Your task to perform on an android device: View the shopping cart on amazon.com. Add macbook air to the cart on amazon.com Image 0: 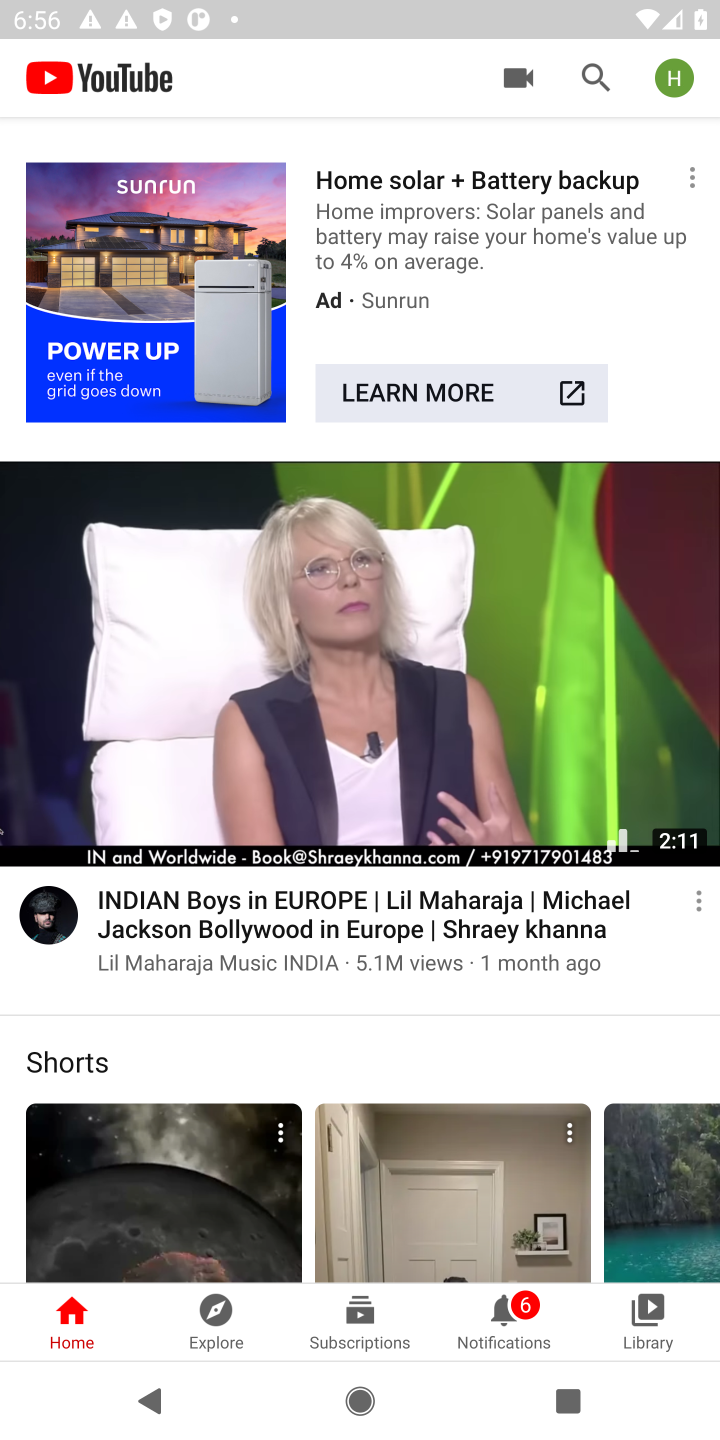
Step 0: press home button
Your task to perform on an android device: View the shopping cart on amazon.com. Add macbook air to the cart on amazon.com Image 1: 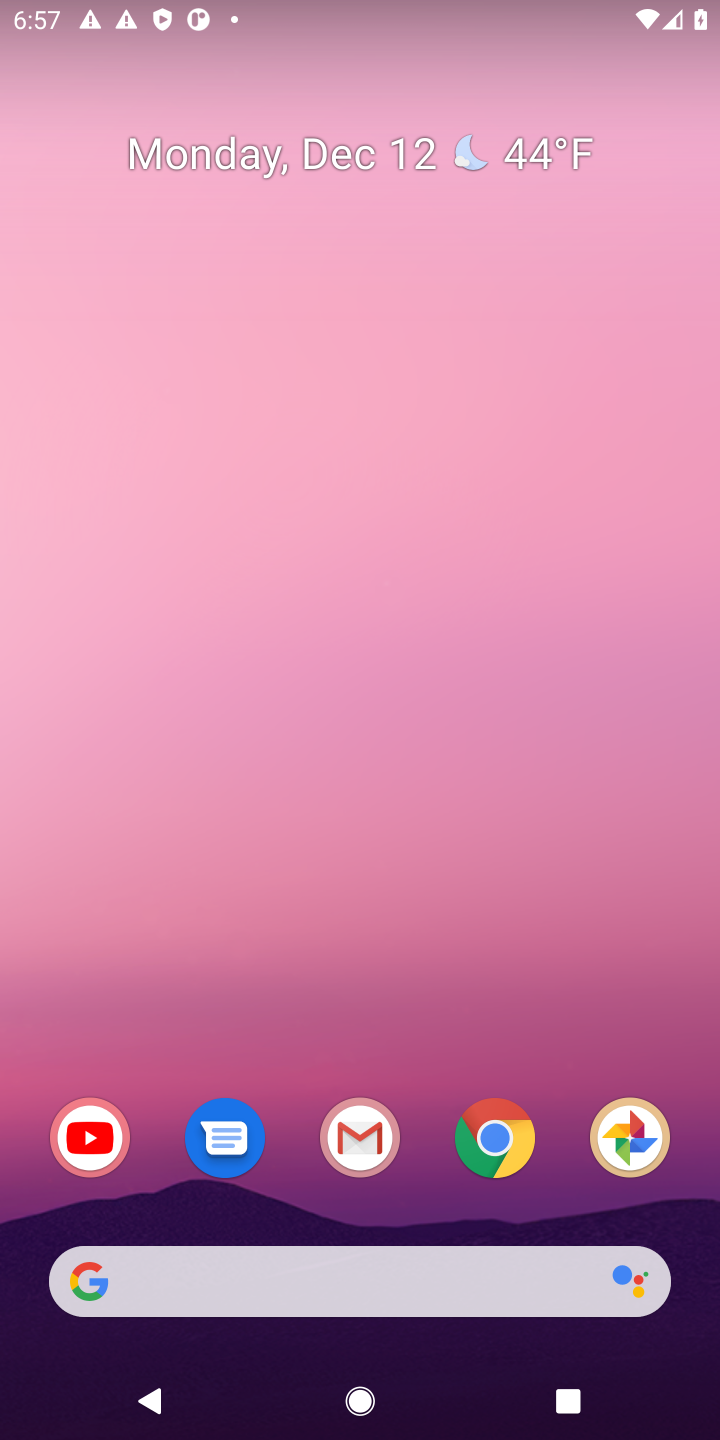
Step 1: click (297, 1281)
Your task to perform on an android device: View the shopping cart on amazon.com. Add macbook air to the cart on amazon.com Image 2: 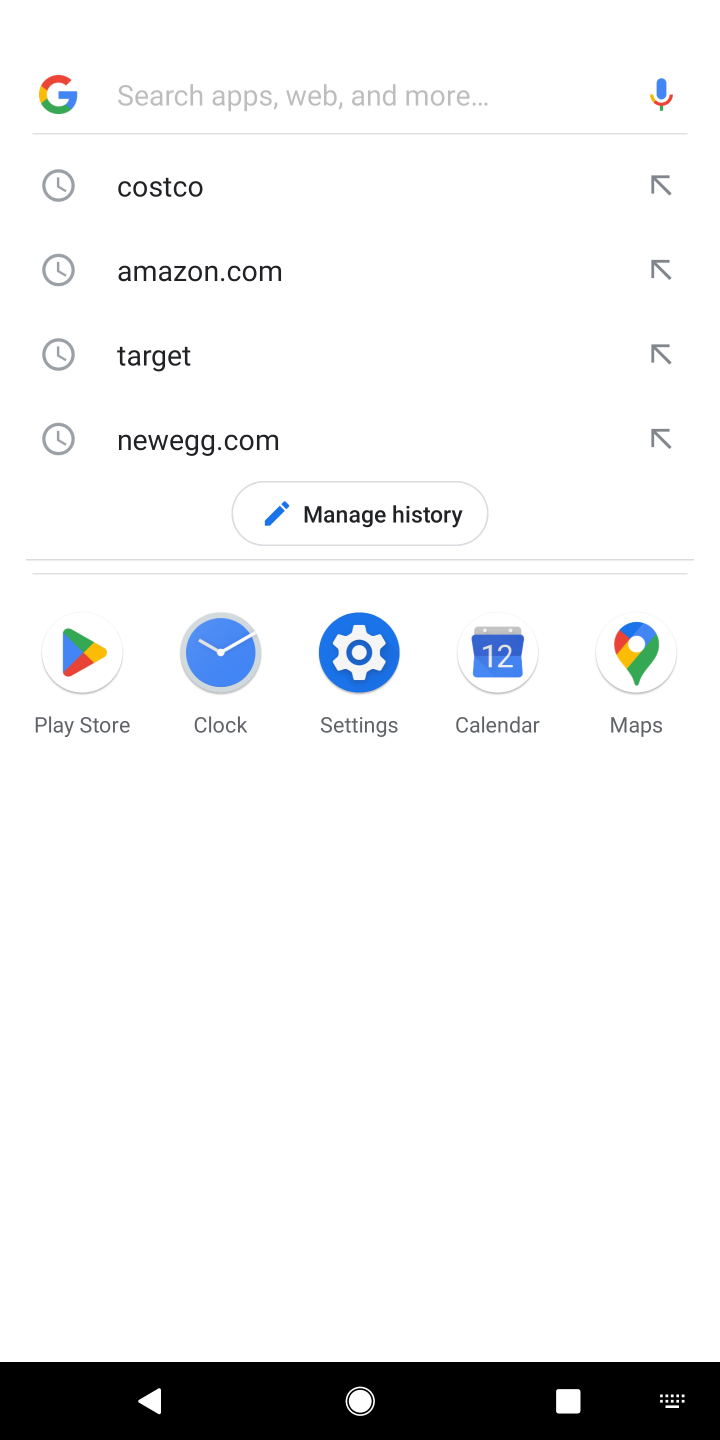
Step 2: click (172, 259)
Your task to perform on an android device: View the shopping cart on amazon.com. Add macbook air to the cart on amazon.com Image 3: 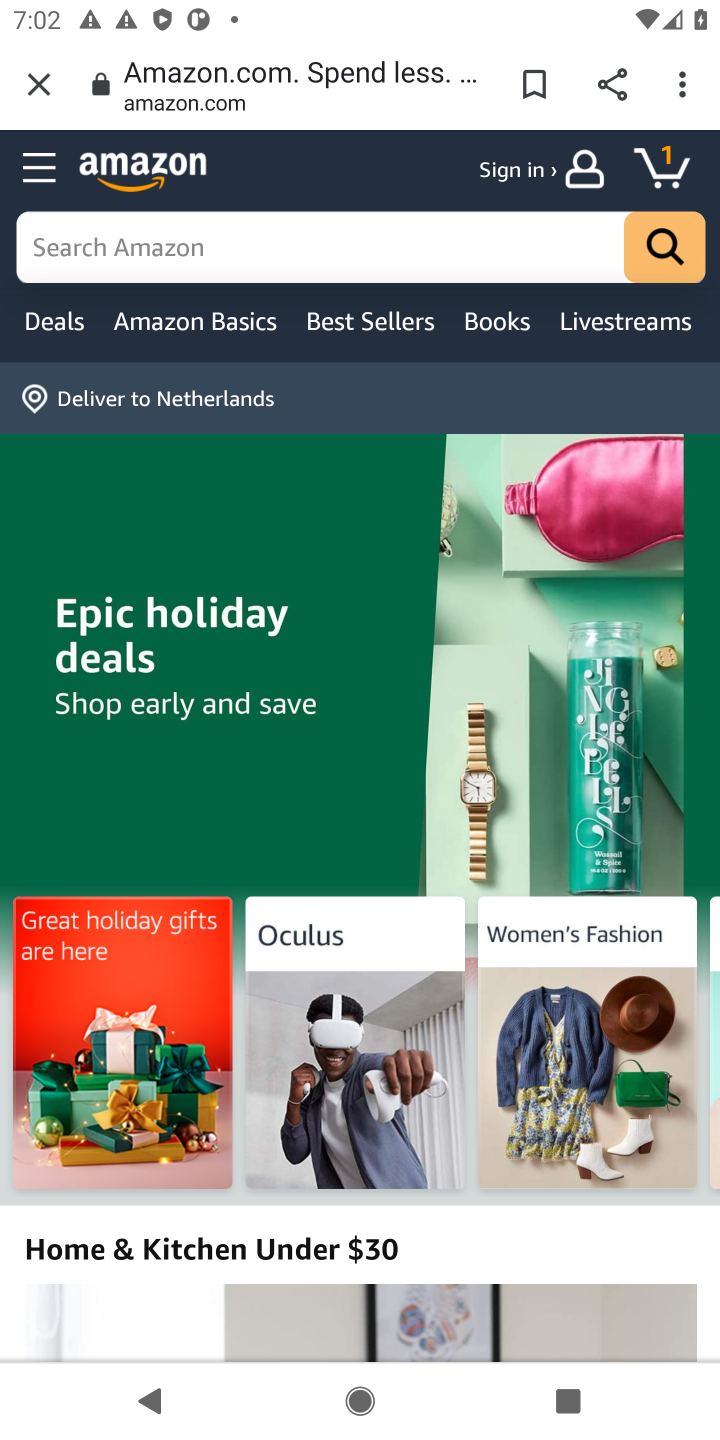
Step 3: click (664, 159)
Your task to perform on an android device: View the shopping cart on amazon.com. Add macbook air to the cart on amazon.com Image 4: 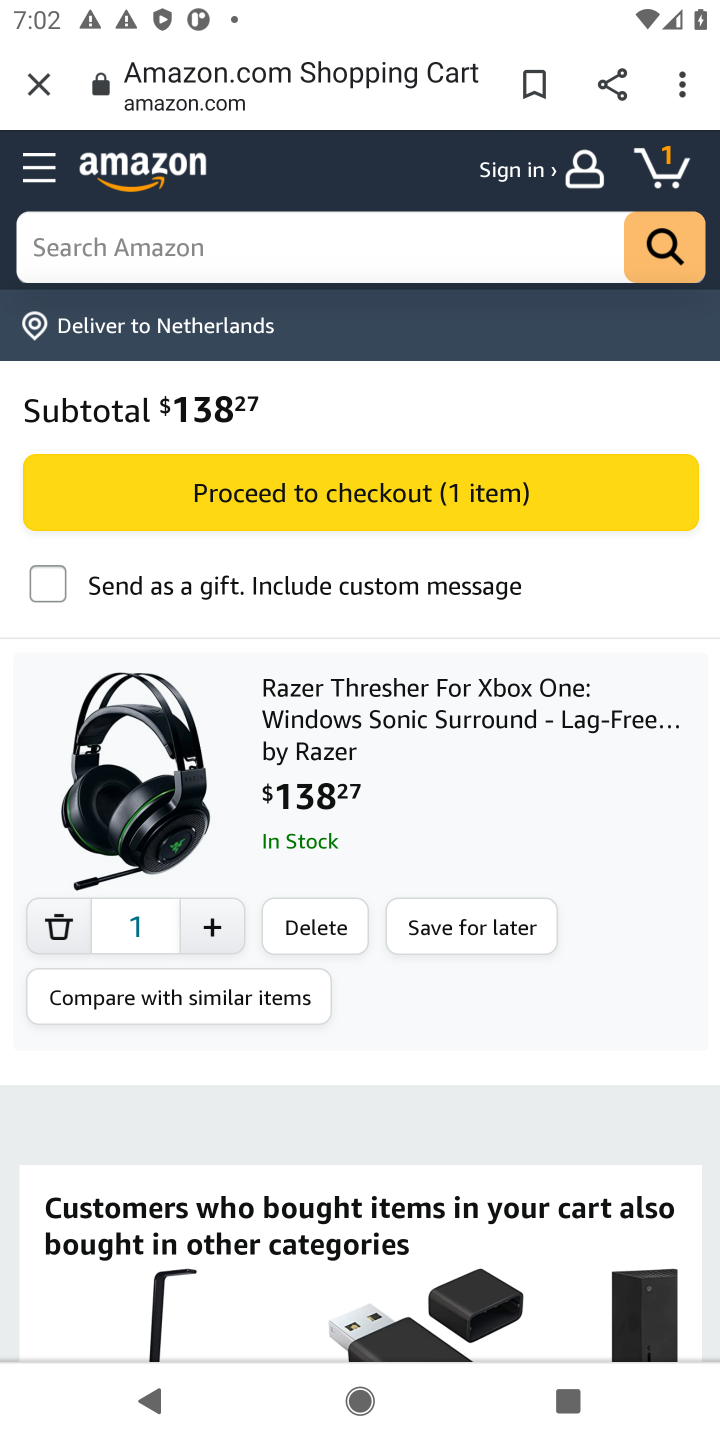
Step 4: click (518, 228)
Your task to perform on an android device: View the shopping cart on amazon.com. Add macbook air to the cart on amazon.com Image 5: 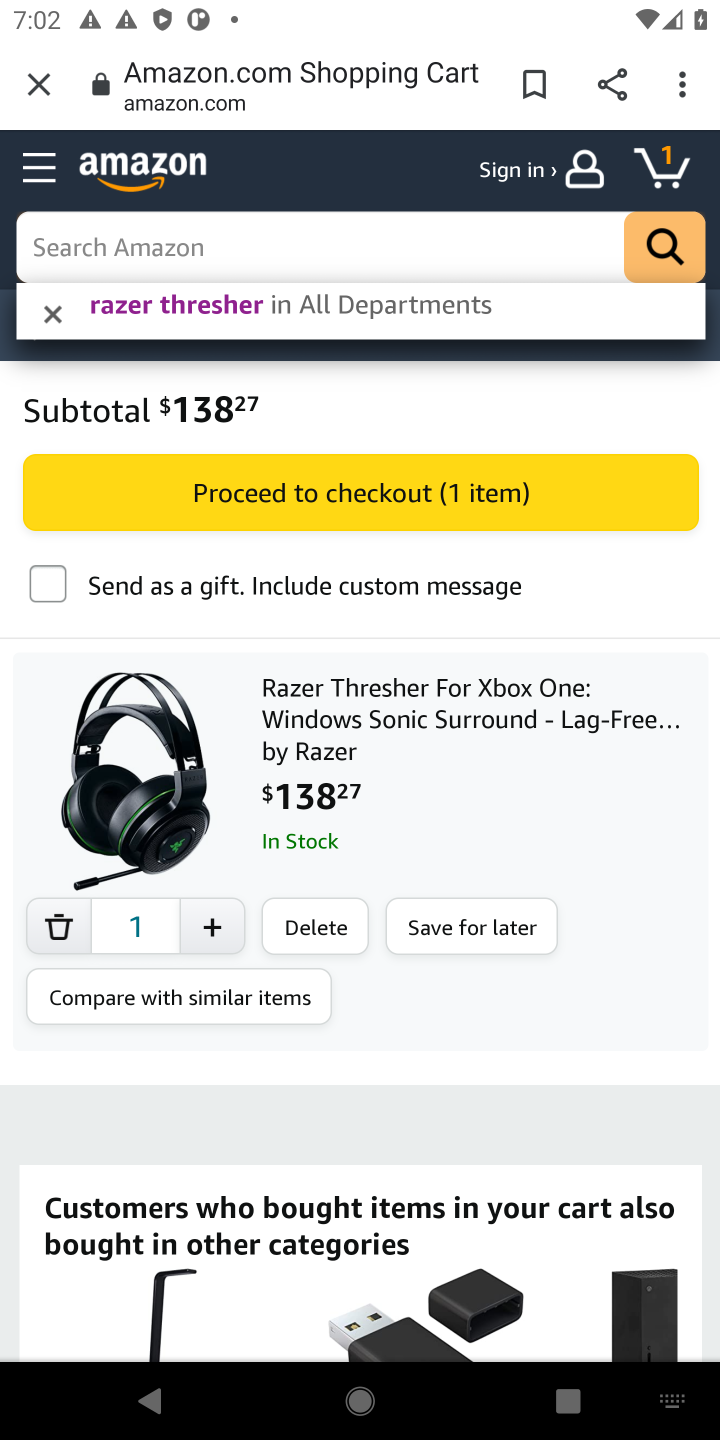
Step 5: type "macbook air "
Your task to perform on an android device: View the shopping cart on amazon.com. Add macbook air to the cart on amazon.com Image 6: 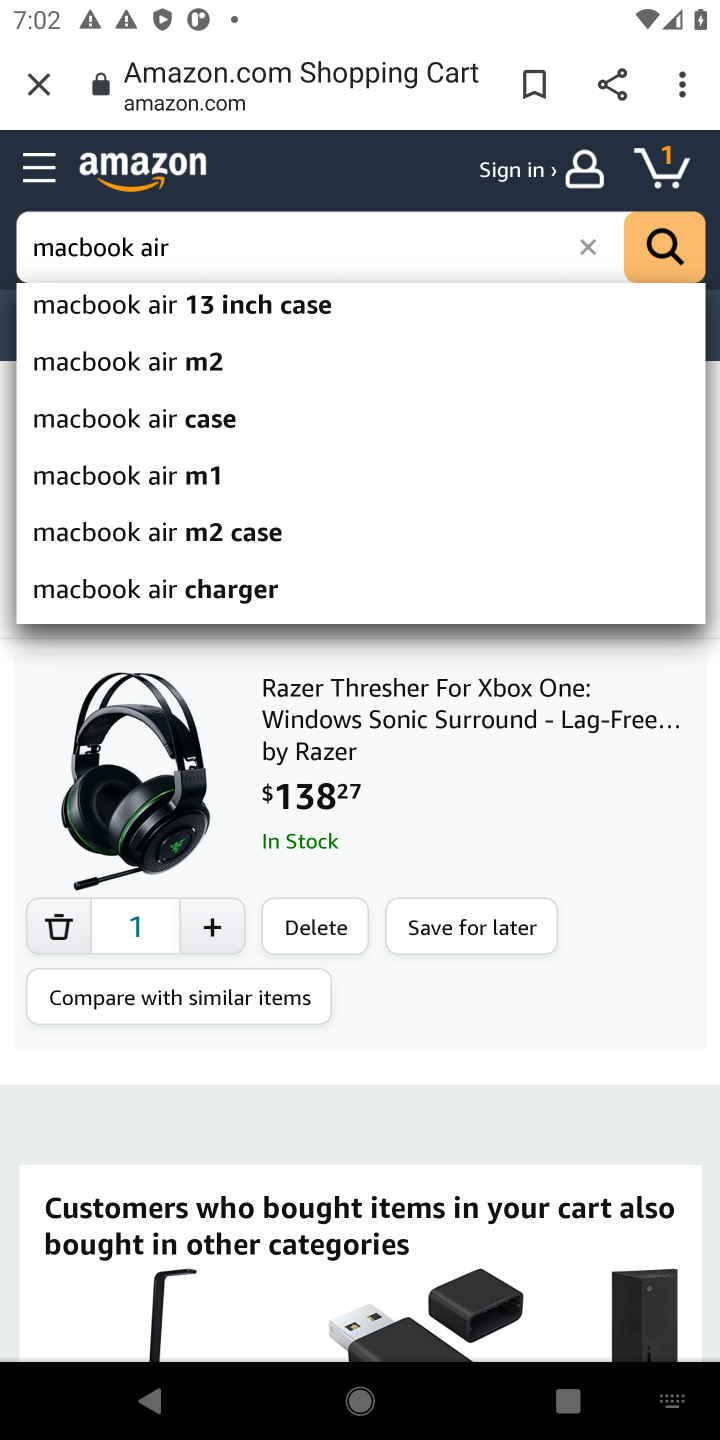
Step 6: click (260, 410)
Your task to perform on an android device: View the shopping cart on amazon.com. Add macbook air to the cart on amazon.com Image 7: 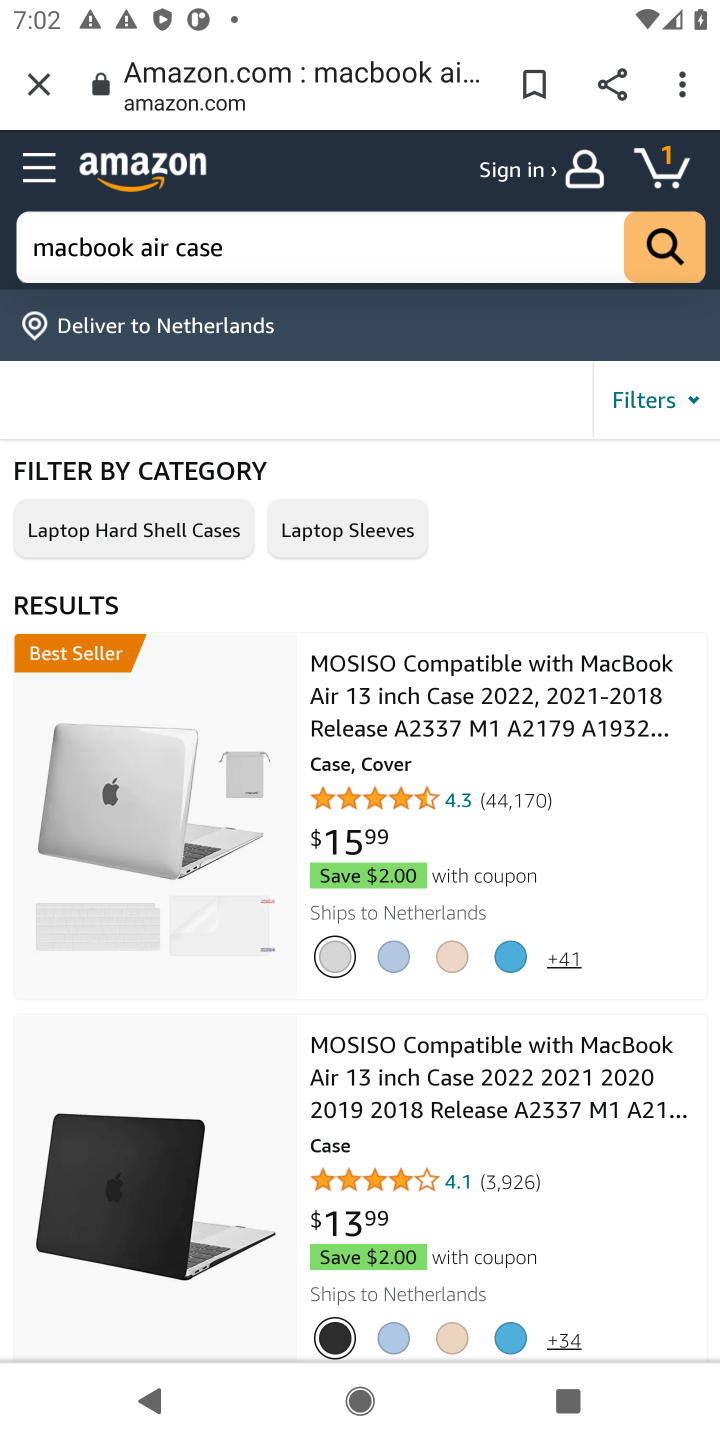
Step 7: click (475, 697)
Your task to perform on an android device: View the shopping cart on amazon.com. Add macbook air to the cart on amazon.com Image 8: 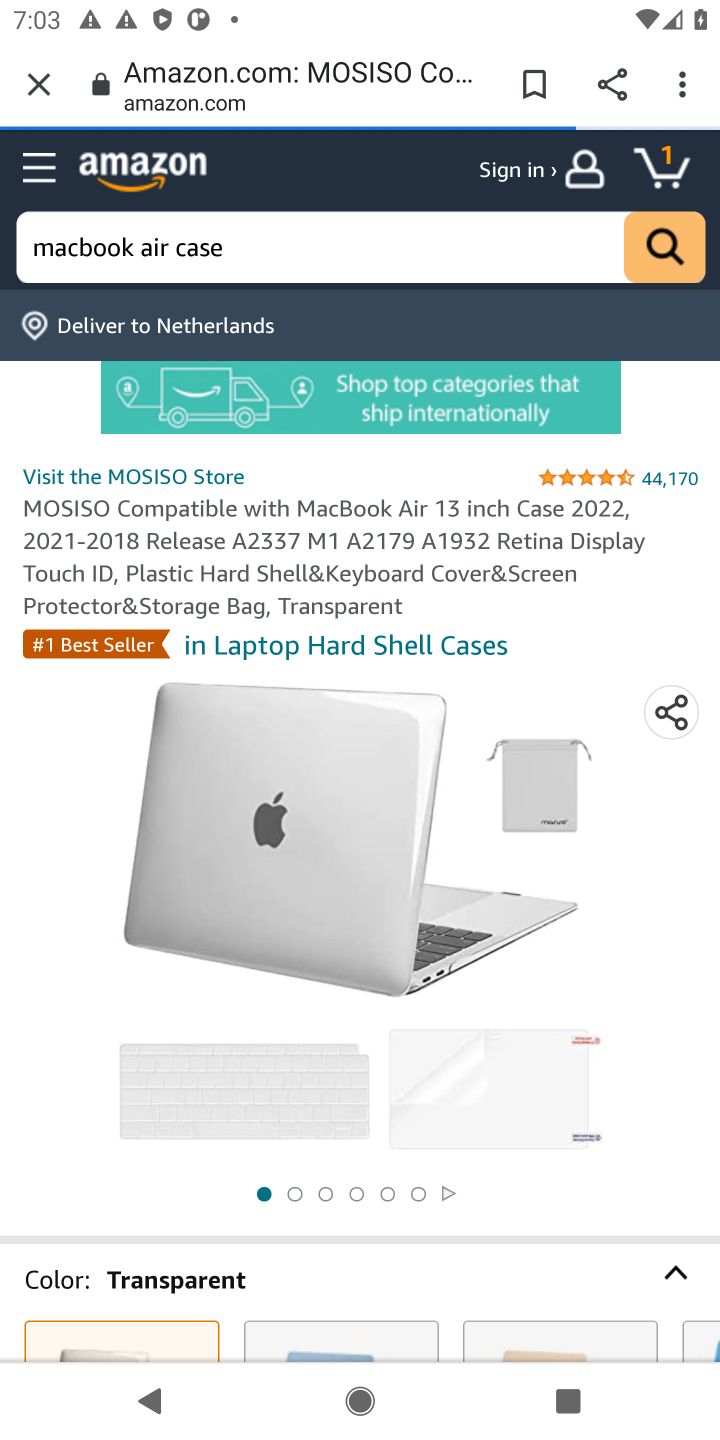
Step 8: click (466, 740)
Your task to perform on an android device: View the shopping cart on amazon.com. Add macbook air to the cart on amazon.com Image 9: 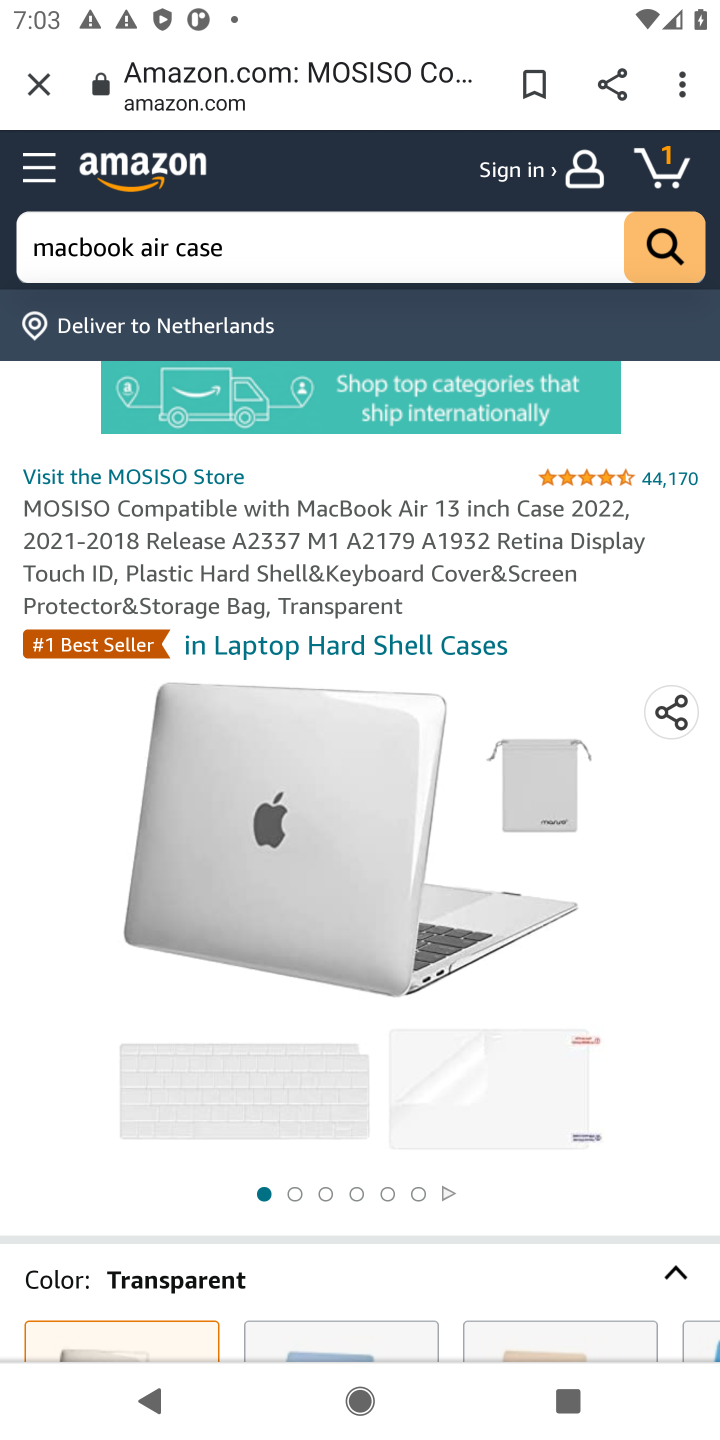
Step 9: drag from (399, 1224) to (488, 729)
Your task to perform on an android device: View the shopping cart on amazon.com. Add macbook air to the cart on amazon.com Image 10: 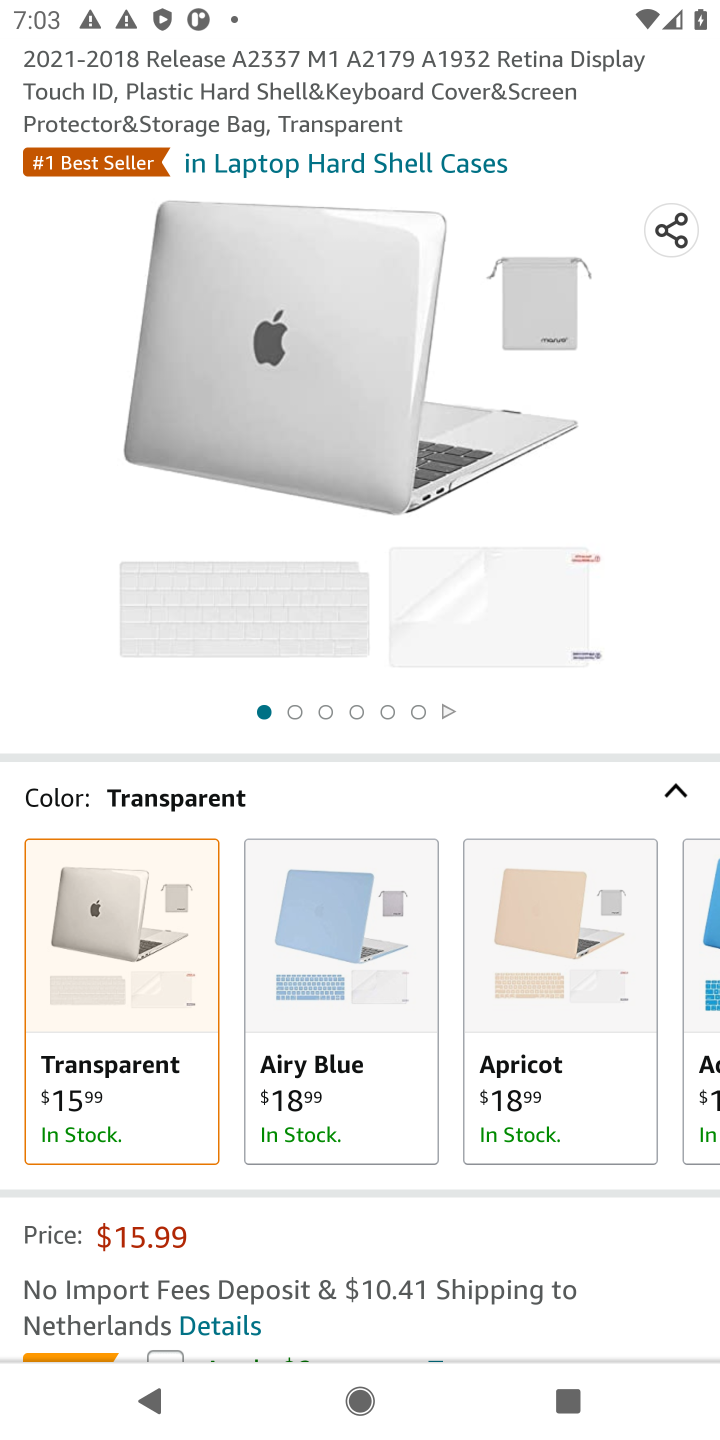
Step 10: drag from (355, 1212) to (445, 767)
Your task to perform on an android device: View the shopping cart on amazon.com. Add macbook air to the cart on amazon.com Image 11: 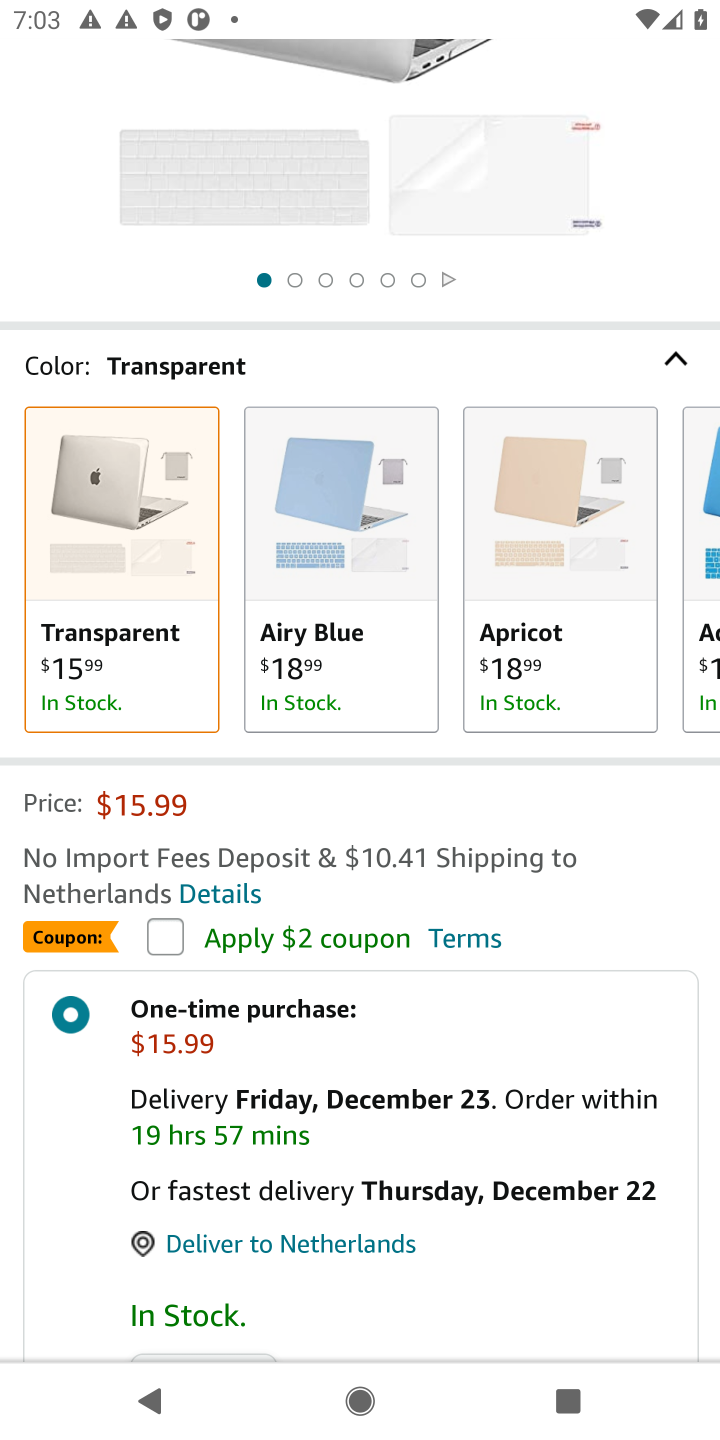
Step 11: drag from (383, 898) to (398, 834)
Your task to perform on an android device: View the shopping cart on amazon.com. Add macbook air to the cart on amazon.com Image 12: 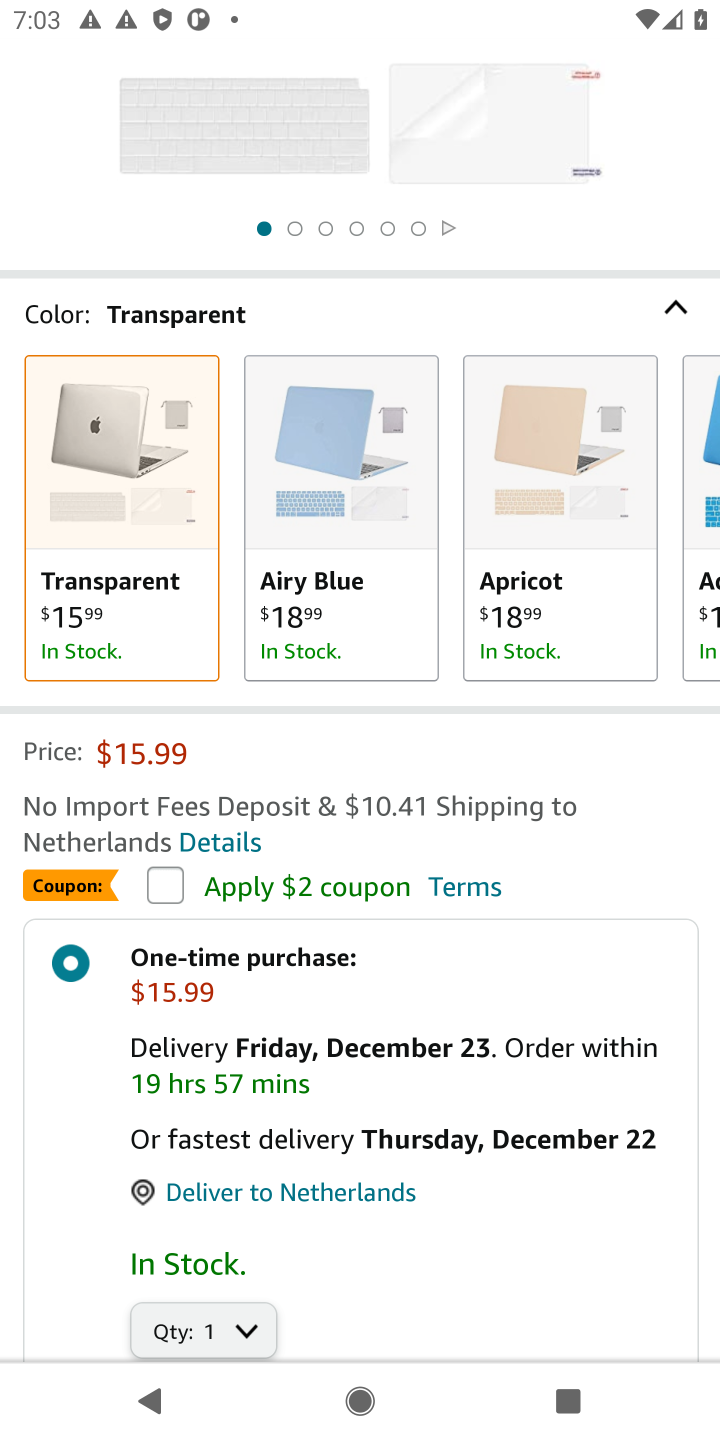
Step 12: drag from (338, 1234) to (427, 811)
Your task to perform on an android device: View the shopping cart on amazon.com. Add macbook air to the cart on amazon.com Image 13: 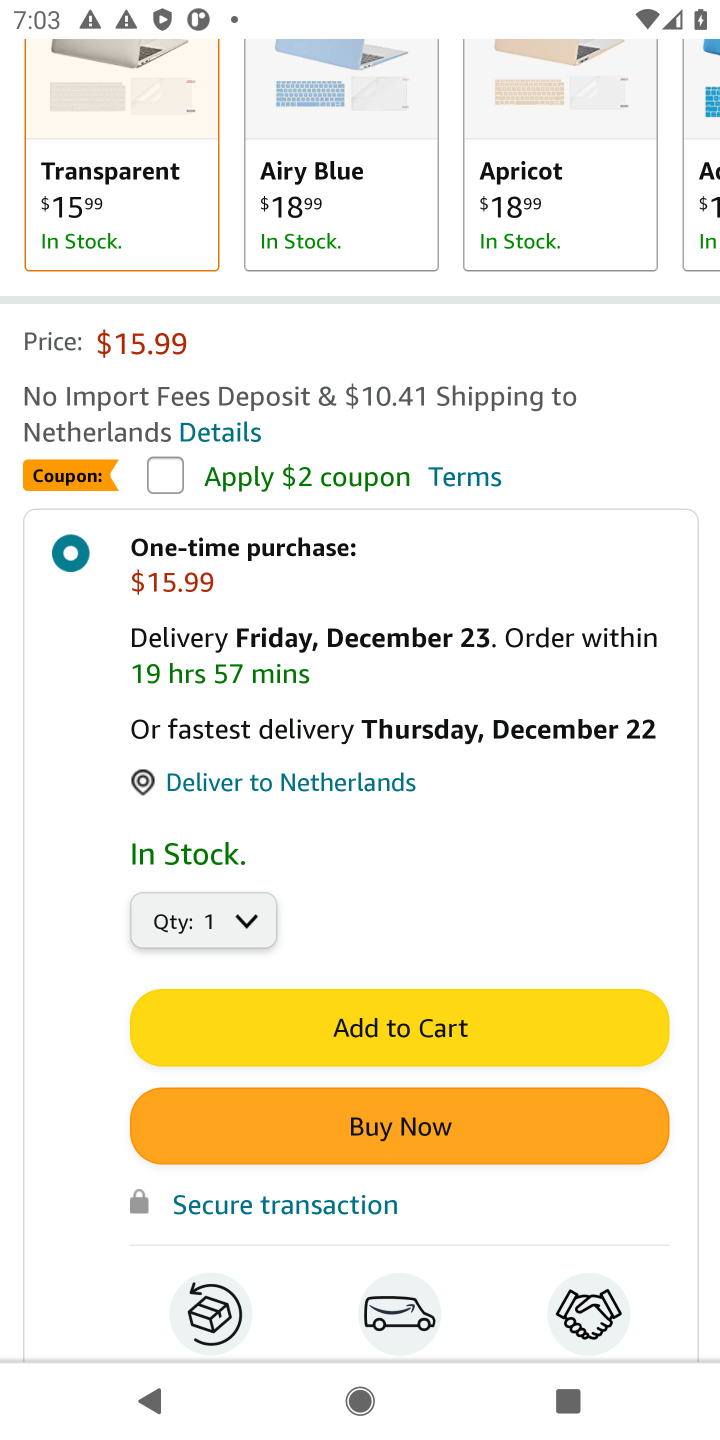
Step 13: click (375, 1325)
Your task to perform on an android device: View the shopping cart on amazon.com. Add macbook air to the cart on amazon.com Image 14: 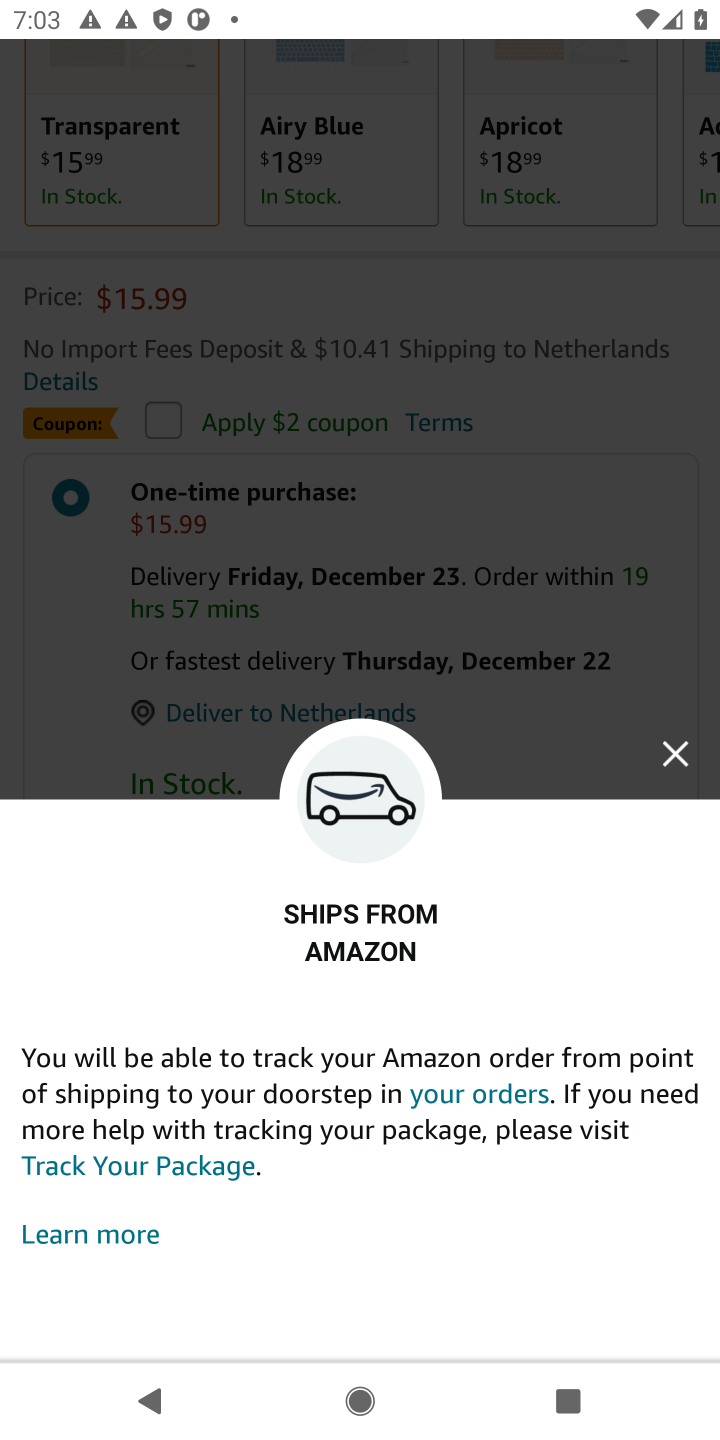
Step 14: click (678, 757)
Your task to perform on an android device: View the shopping cart on amazon.com. Add macbook air to the cart on amazon.com Image 15: 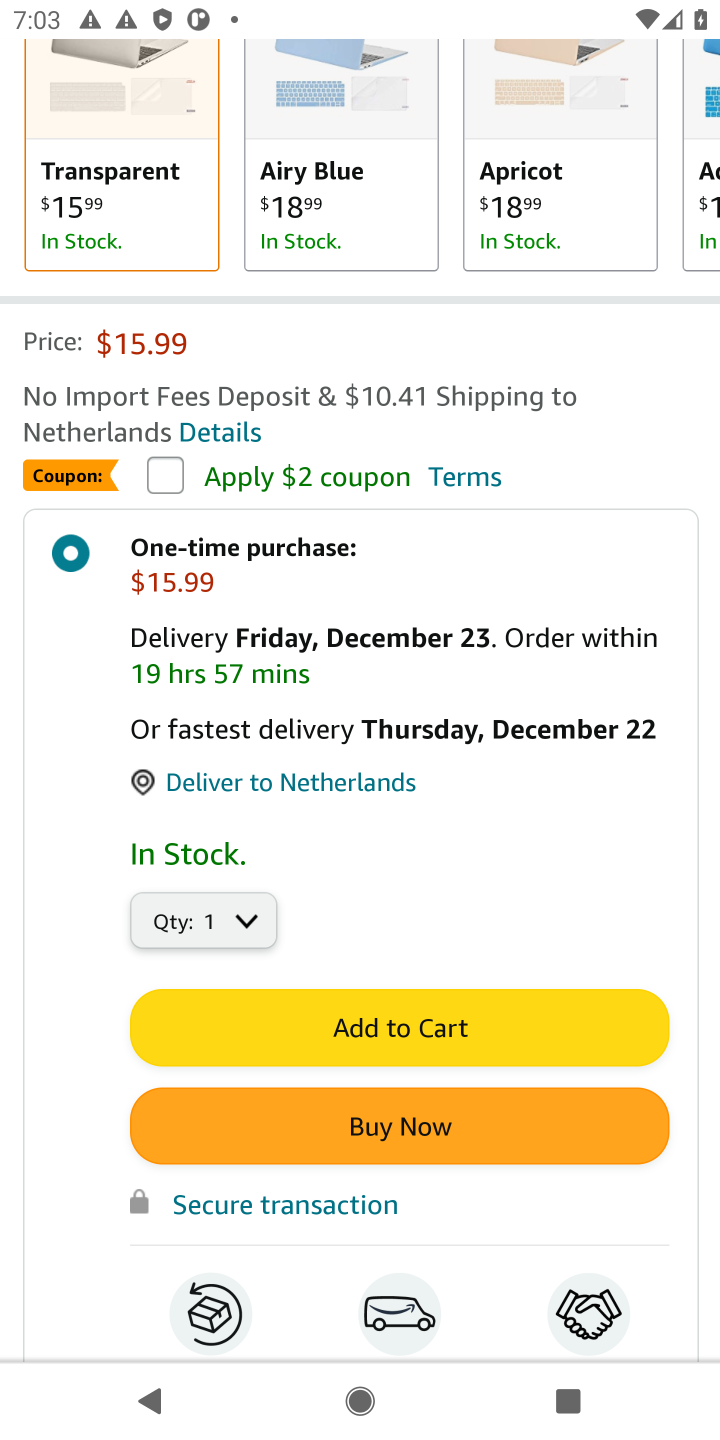
Step 15: click (381, 1031)
Your task to perform on an android device: View the shopping cart on amazon.com. Add macbook air to the cart on amazon.com Image 16: 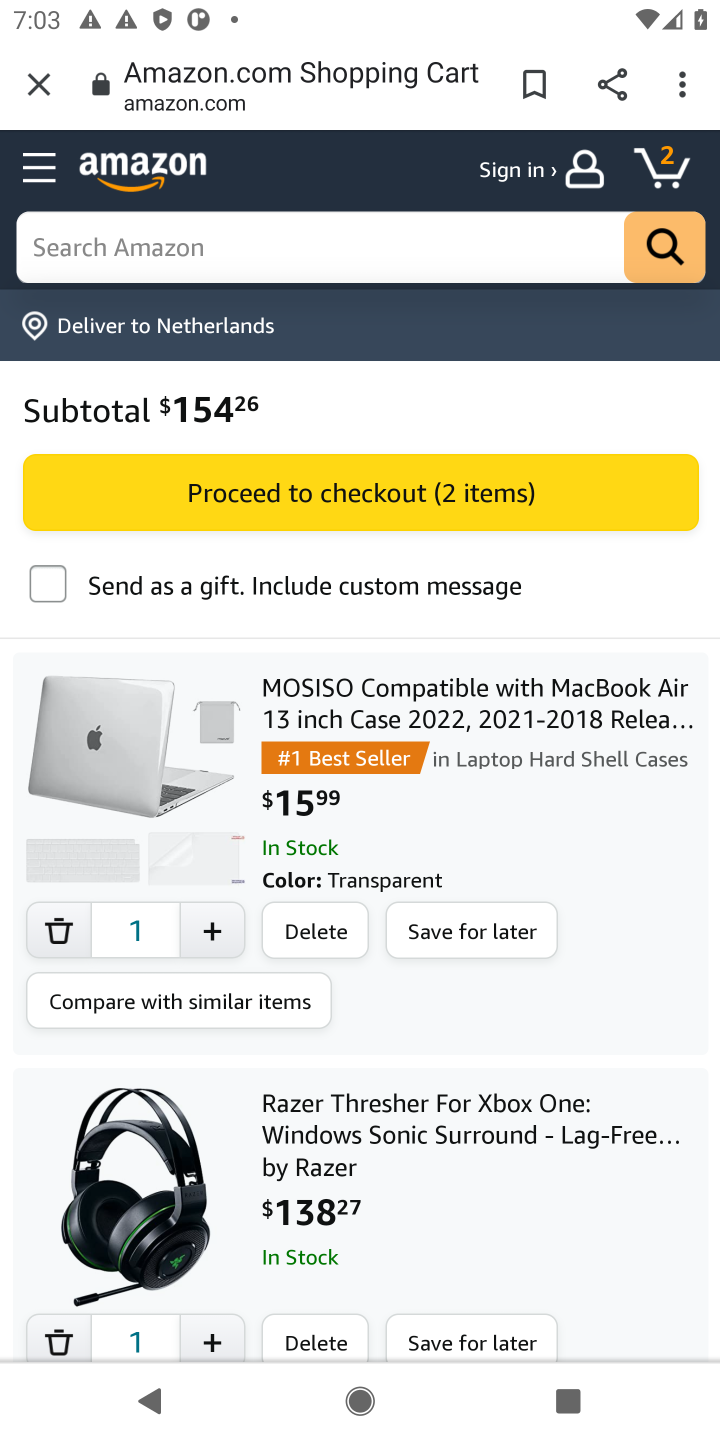
Step 16: click (419, 488)
Your task to perform on an android device: View the shopping cart on amazon.com. Add macbook air to the cart on amazon.com Image 17: 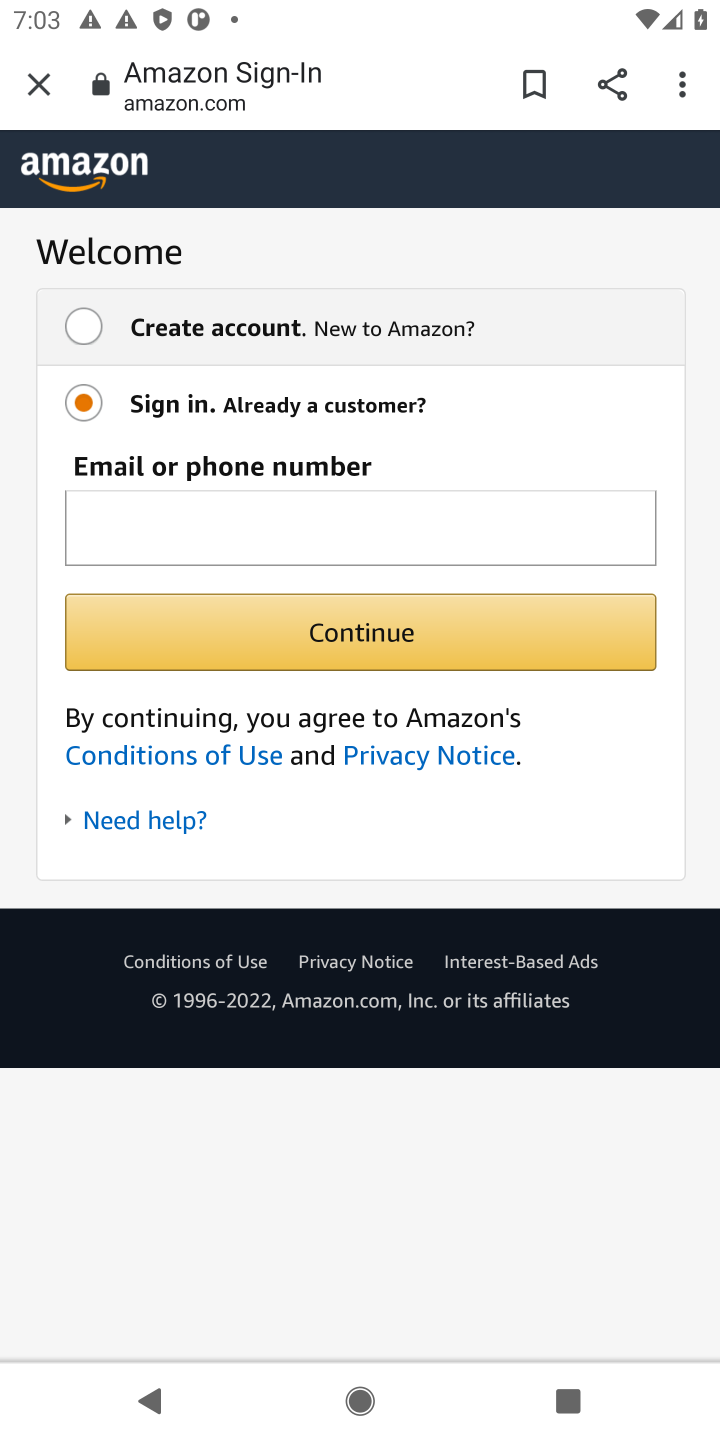
Step 17: task complete